Your task to perform on an android device: Show me recent news Image 0: 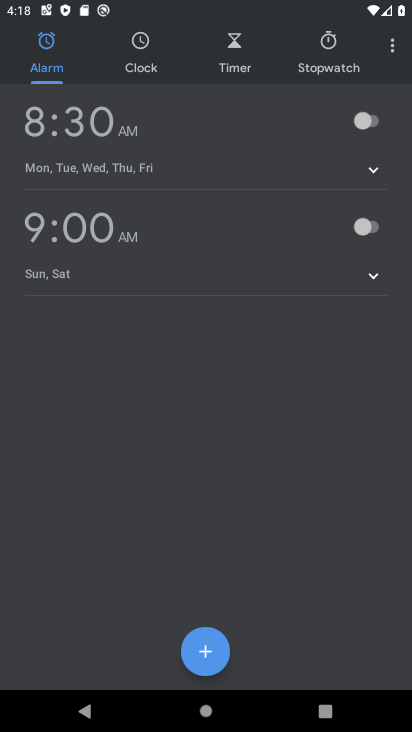
Step 0: press home button
Your task to perform on an android device: Show me recent news Image 1: 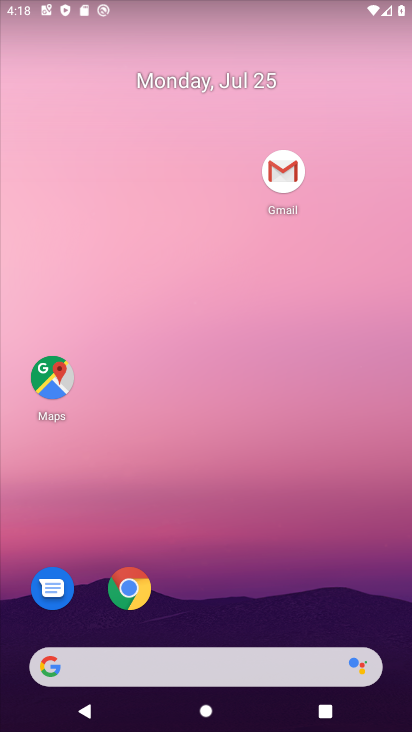
Step 1: drag from (312, 507) to (345, 0)
Your task to perform on an android device: Show me recent news Image 2: 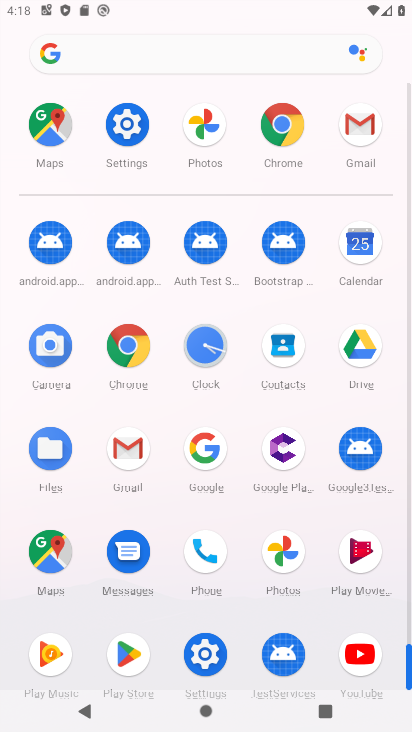
Step 2: click (276, 121)
Your task to perform on an android device: Show me recent news Image 3: 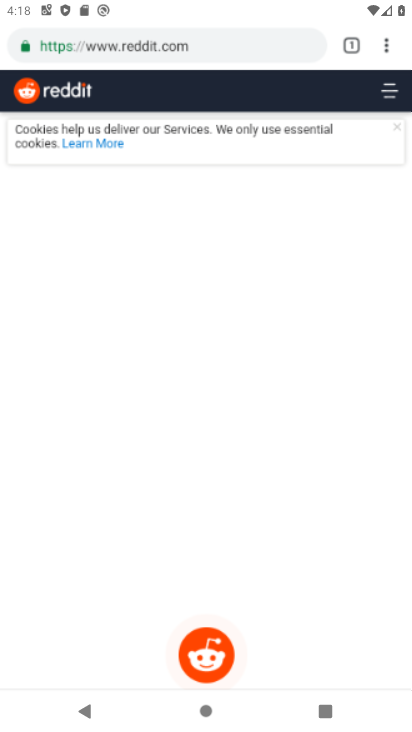
Step 3: click (261, 45)
Your task to perform on an android device: Show me recent news Image 4: 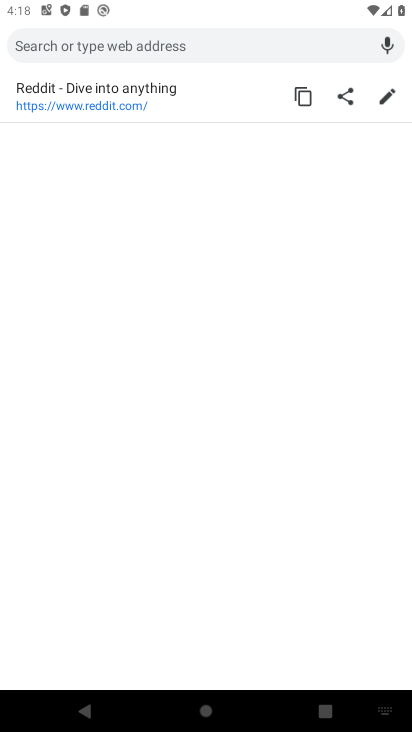
Step 4: type "news"
Your task to perform on an android device: Show me recent news Image 5: 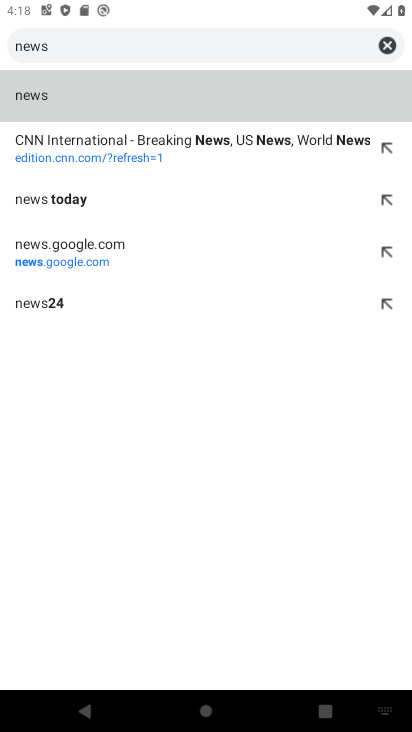
Step 5: click (40, 87)
Your task to perform on an android device: Show me recent news Image 6: 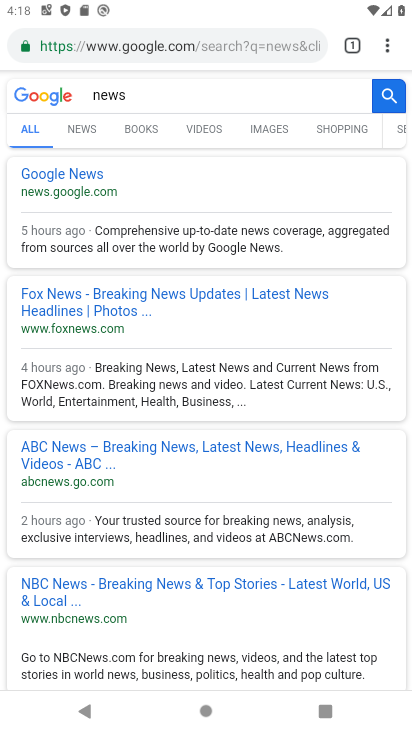
Step 6: click (51, 173)
Your task to perform on an android device: Show me recent news Image 7: 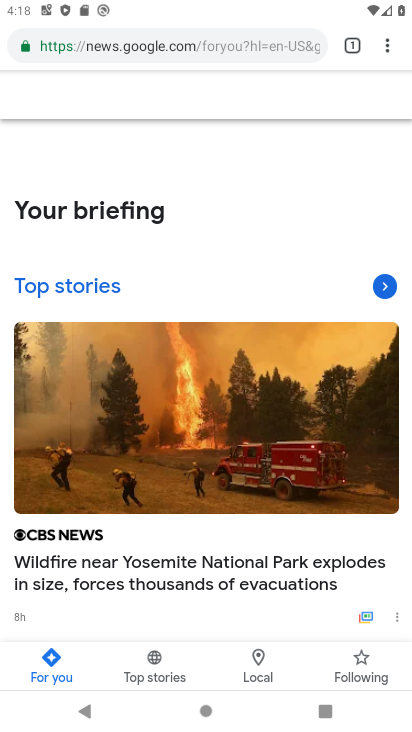
Step 7: task complete